Your task to perform on an android device: Open location settings Image 0: 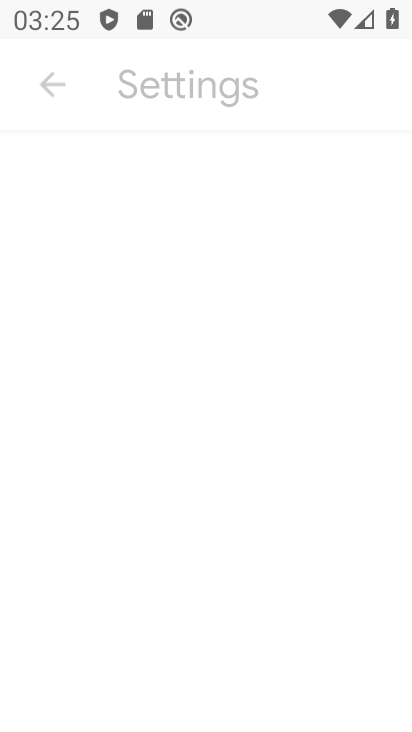
Step 0: click (79, 403)
Your task to perform on an android device: Open location settings Image 1: 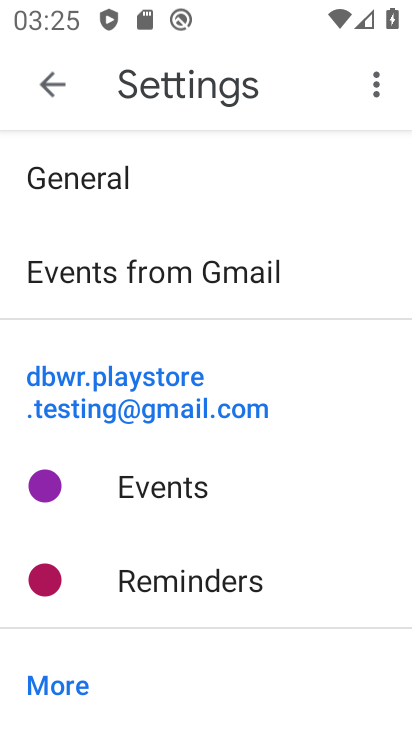
Step 1: click (58, 79)
Your task to perform on an android device: Open location settings Image 2: 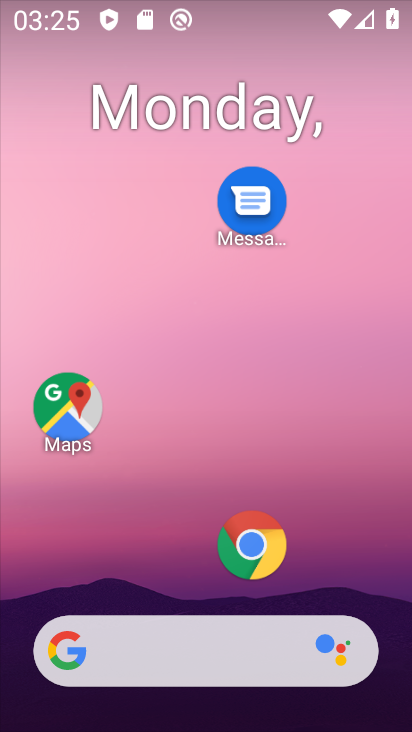
Step 2: drag from (104, 534) to (193, 129)
Your task to perform on an android device: Open location settings Image 3: 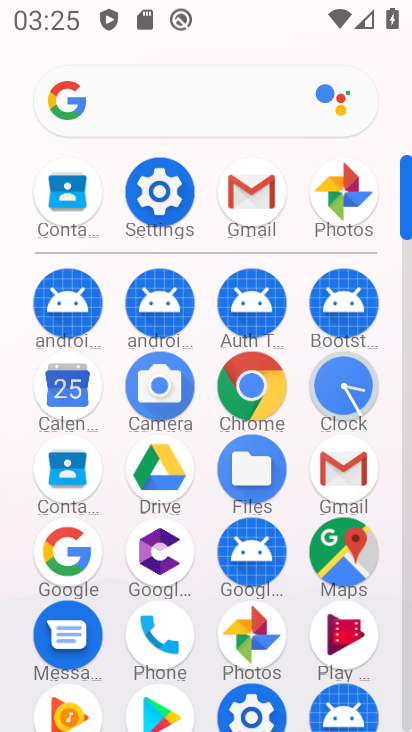
Step 3: click (166, 195)
Your task to perform on an android device: Open location settings Image 4: 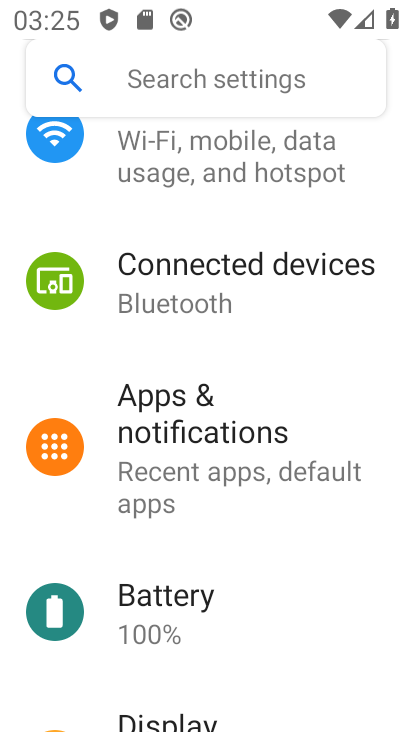
Step 4: drag from (165, 640) to (279, 225)
Your task to perform on an android device: Open location settings Image 5: 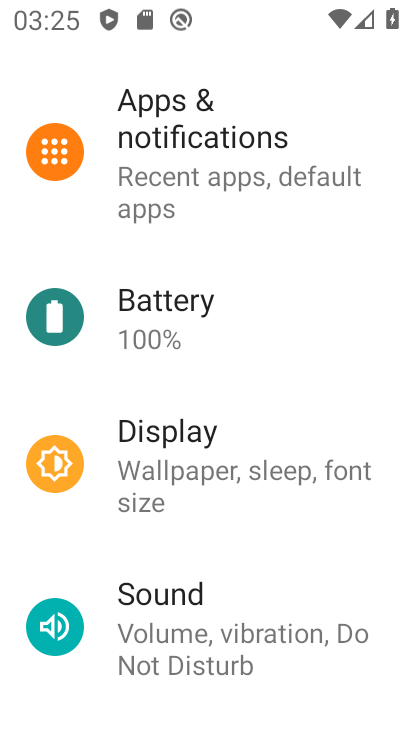
Step 5: drag from (211, 588) to (288, 193)
Your task to perform on an android device: Open location settings Image 6: 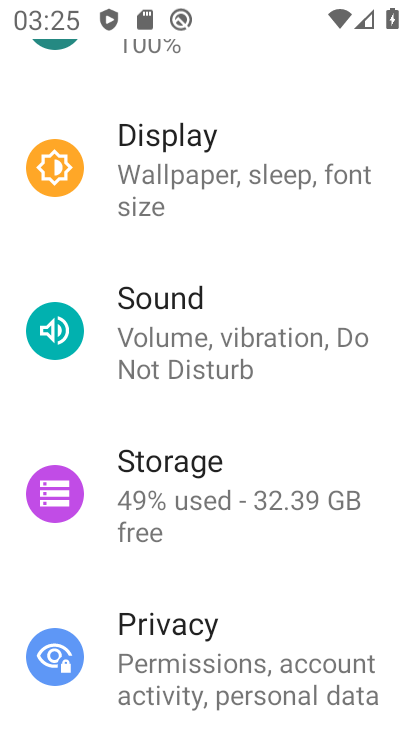
Step 6: drag from (167, 638) to (301, 196)
Your task to perform on an android device: Open location settings Image 7: 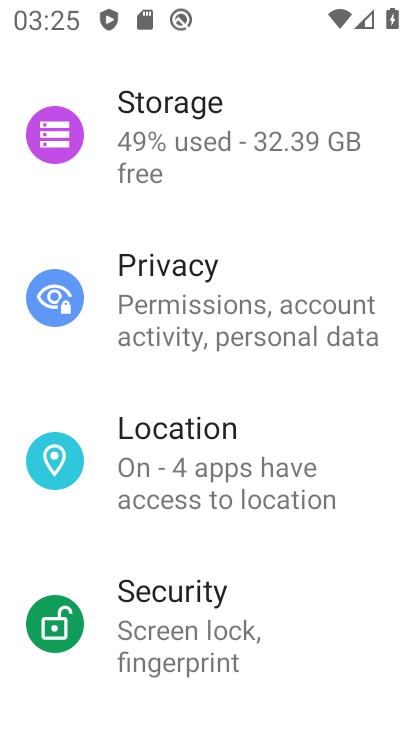
Step 7: click (238, 449)
Your task to perform on an android device: Open location settings Image 8: 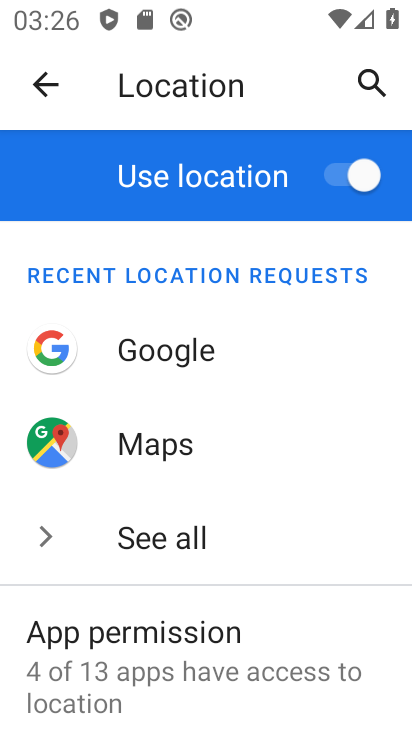
Step 8: task complete